Your task to perform on an android device: check out phone information Image 0: 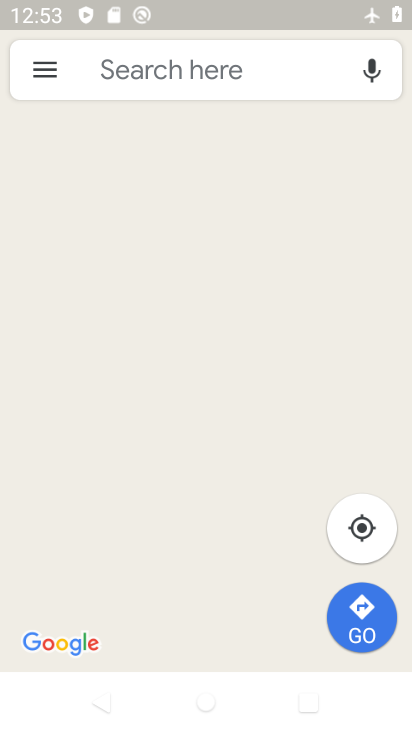
Step 0: press home button
Your task to perform on an android device: check out phone information Image 1: 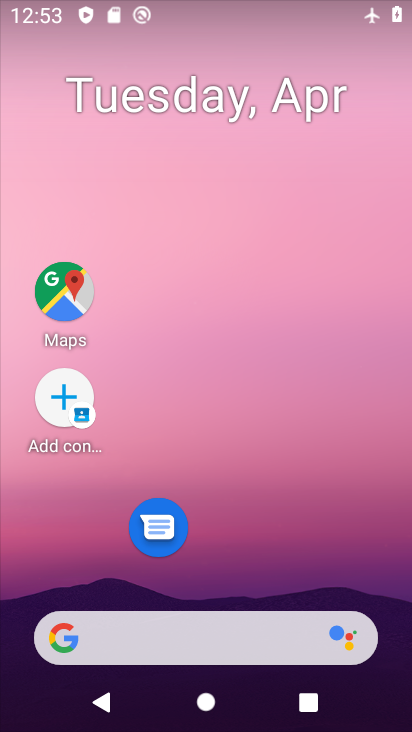
Step 1: drag from (257, 578) to (299, 32)
Your task to perform on an android device: check out phone information Image 2: 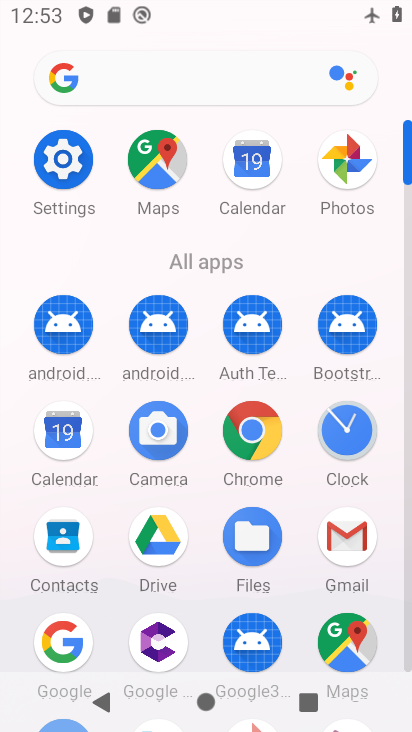
Step 2: click (60, 156)
Your task to perform on an android device: check out phone information Image 3: 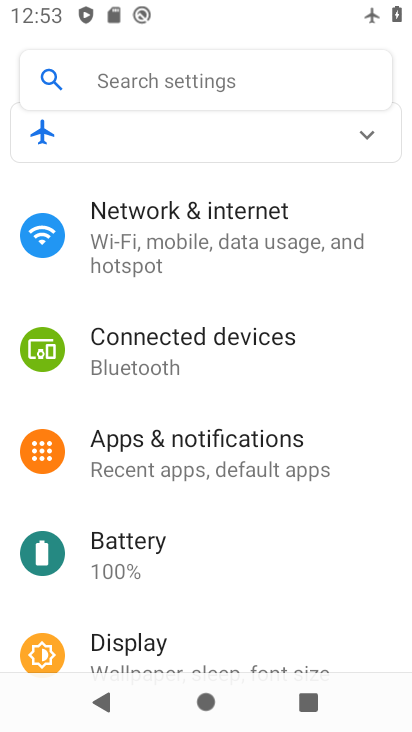
Step 3: drag from (198, 399) to (252, 280)
Your task to perform on an android device: check out phone information Image 4: 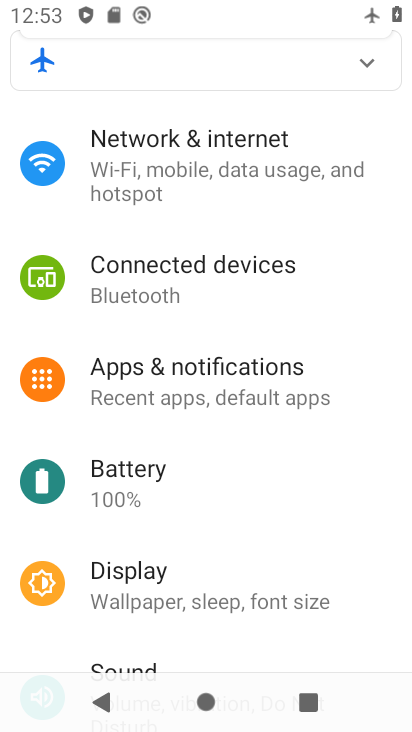
Step 4: drag from (201, 427) to (256, 318)
Your task to perform on an android device: check out phone information Image 5: 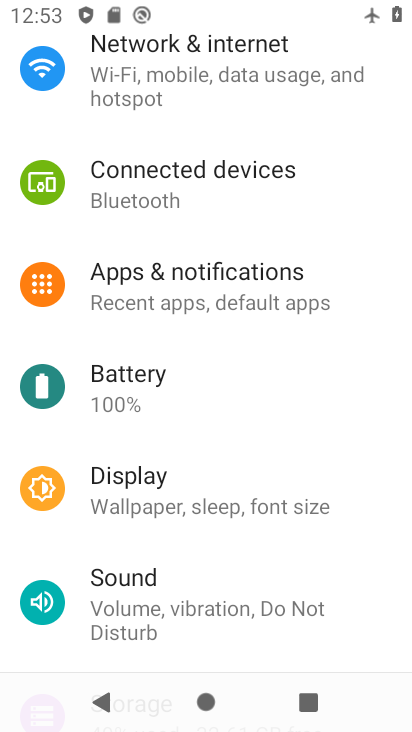
Step 5: drag from (212, 412) to (241, 310)
Your task to perform on an android device: check out phone information Image 6: 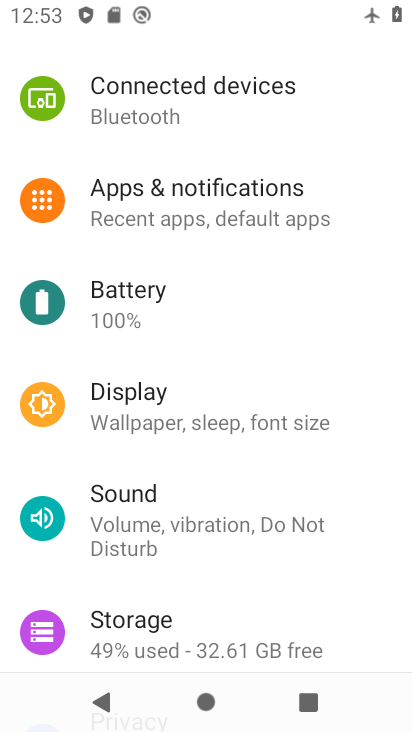
Step 6: drag from (212, 376) to (245, 277)
Your task to perform on an android device: check out phone information Image 7: 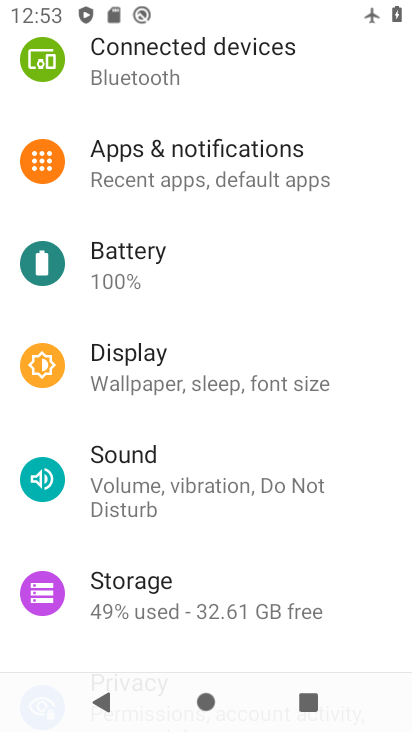
Step 7: drag from (197, 425) to (229, 324)
Your task to perform on an android device: check out phone information Image 8: 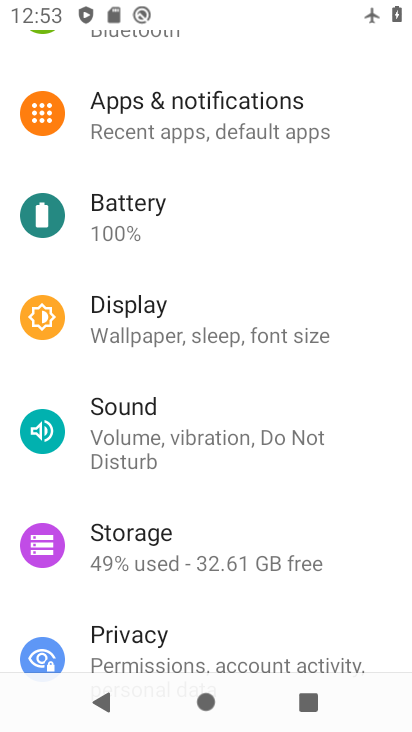
Step 8: drag from (178, 506) to (225, 375)
Your task to perform on an android device: check out phone information Image 9: 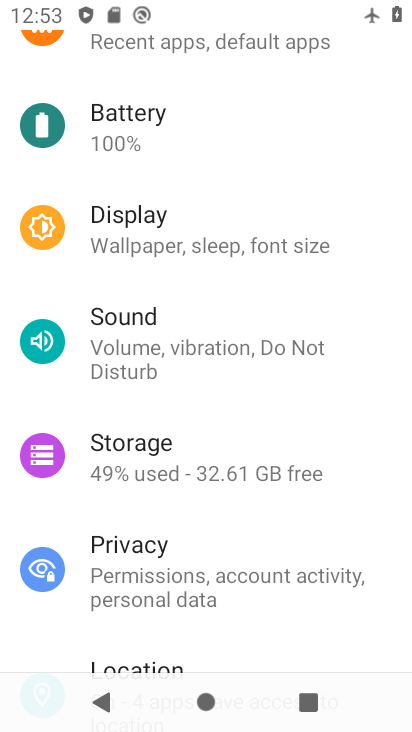
Step 9: drag from (209, 488) to (232, 336)
Your task to perform on an android device: check out phone information Image 10: 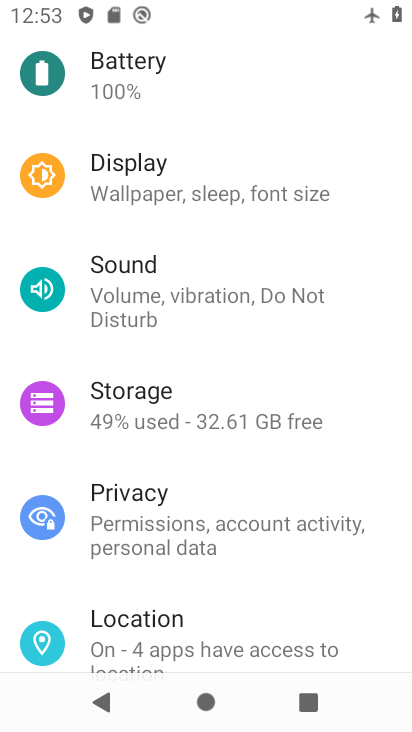
Step 10: drag from (180, 475) to (232, 338)
Your task to perform on an android device: check out phone information Image 11: 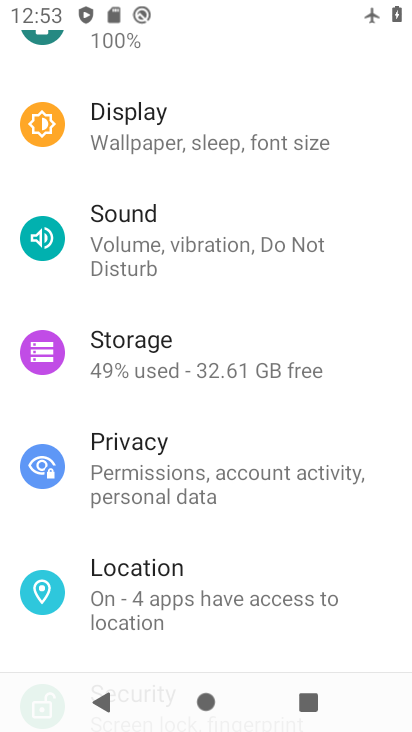
Step 11: drag from (171, 537) to (229, 375)
Your task to perform on an android device: check out phone information Image 12: 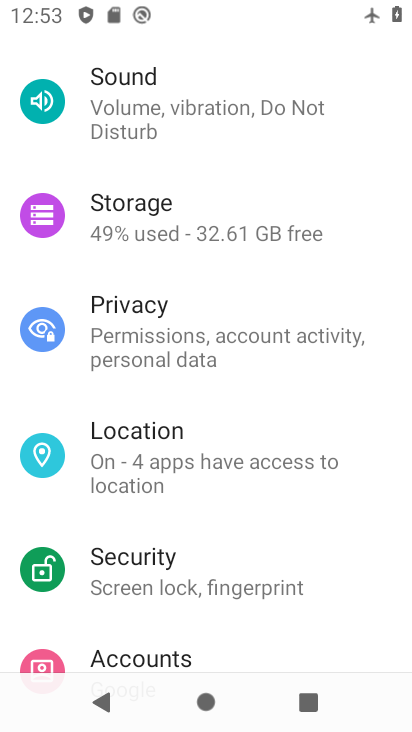
Step 12: drag from (184, 509) to (240, 363)
Your task to perform on an android device: check out phone information Image 13: 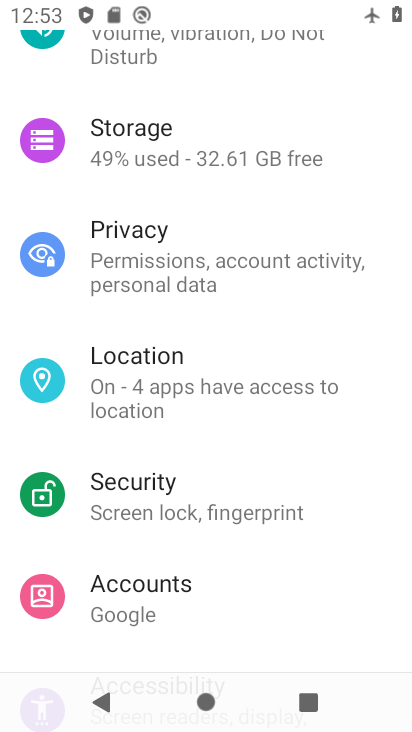
Step 13: drag from (202, 466) to (263, 338)
Your task to perform on an android device: check out phone information Image 14: 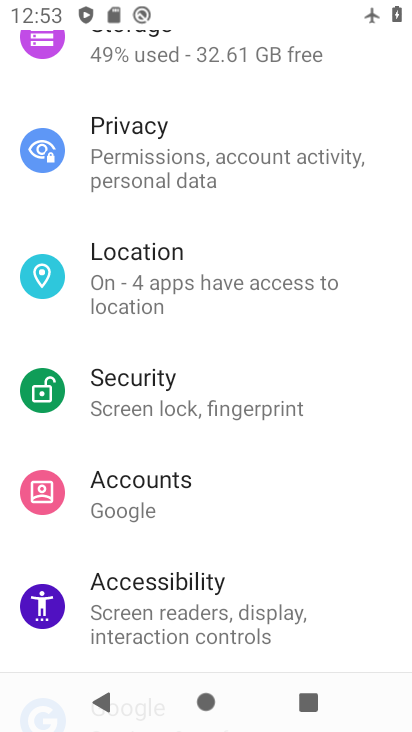
Step 14: drag from (194, 461) to (258, 338)
Your task to perform on an android device: check out phone information Image 15: 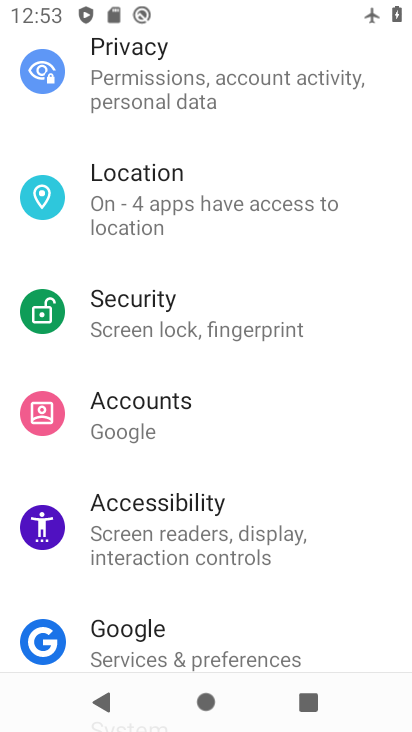
Step 15: drag from (198, 459) to (289, 349)
Your task to perform on an android device: check out phone information Image 16: 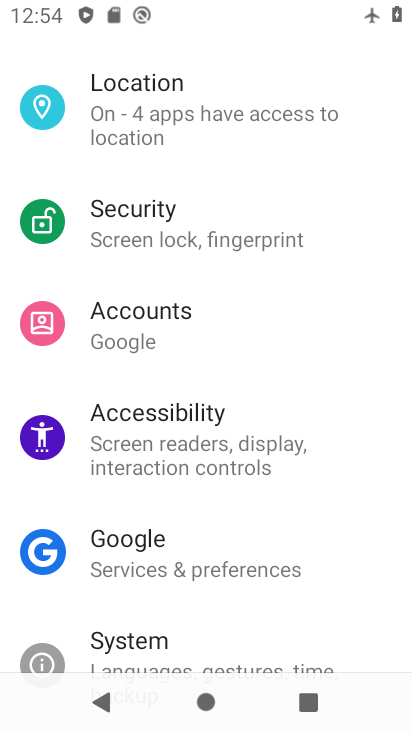
Step 16: drag from (184, 393) to (202, 284)
Your task to perform on an android device: check out phone information Image 17: 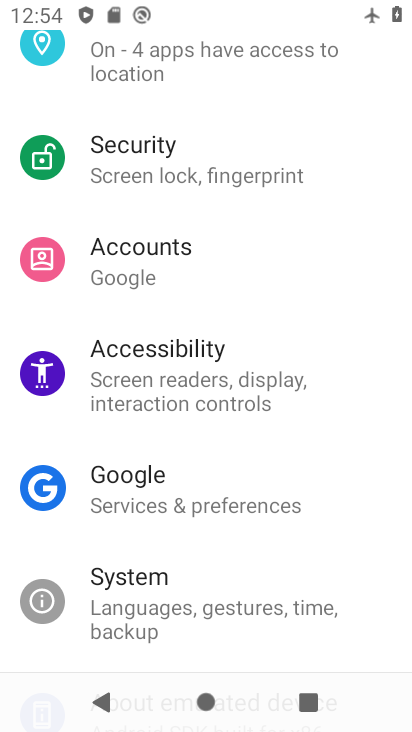
Step 17: drag from (209, 363) to (224, 321)
Your task to perform on an android device: check out phone information Image 18: 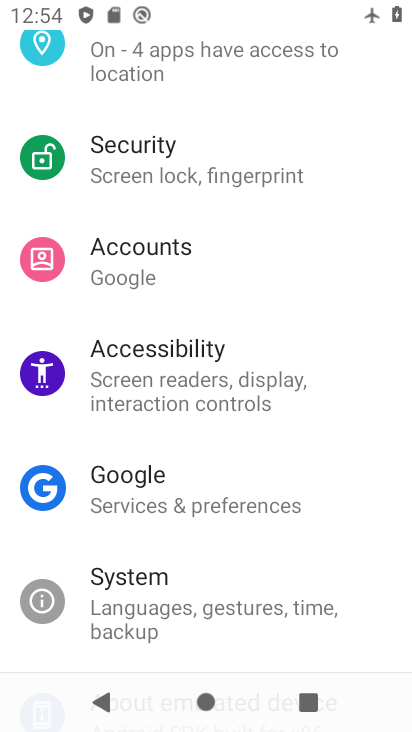
Step 18: drag from (179, 570) to (228, 445)
Your task to perform on an android device: check out phone information Image 19: 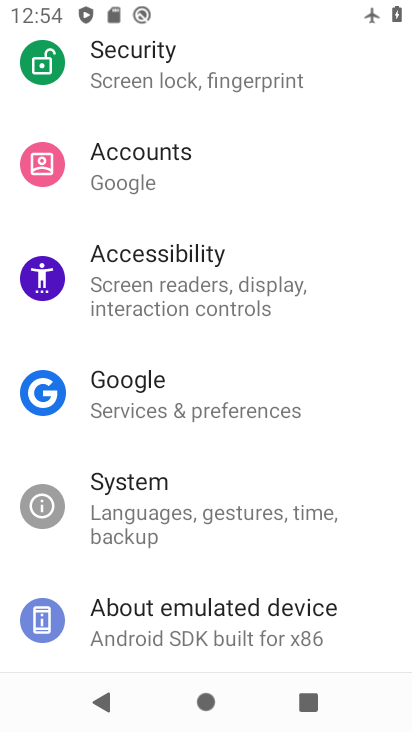
Step 19: click (203, 602)
Your task to perform on an android device: check out phone information Image 20: 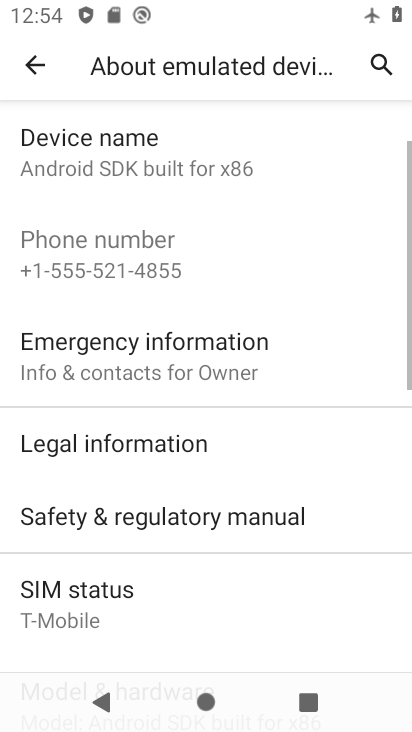
Step 20: task complete